Your task to perform on an android device: turn off translation in the chrome app Image 0: 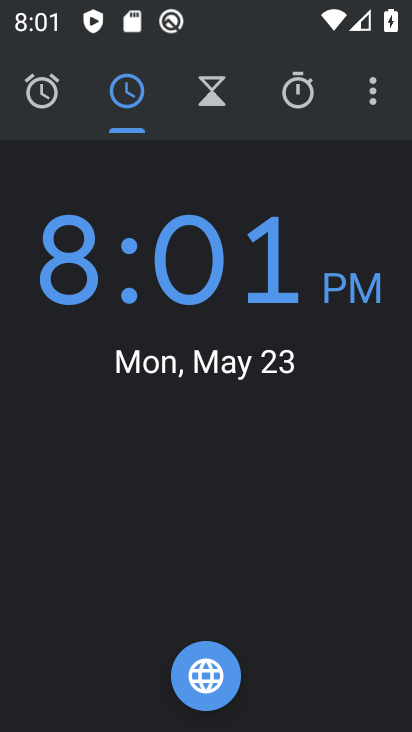
Step 0: press home button
Your task to perform on an android device: turn off translation in the chrome app Image 1: 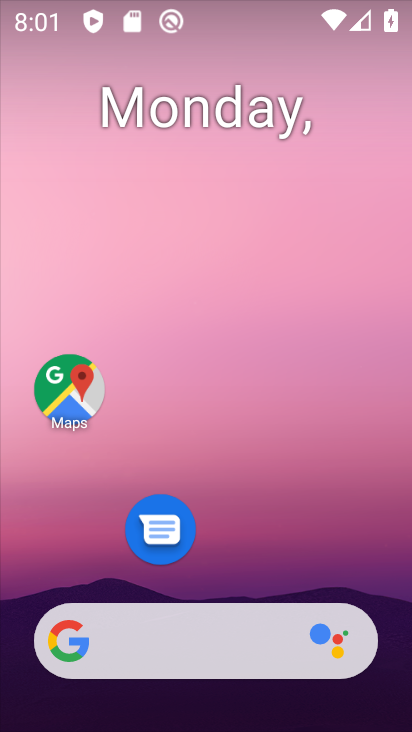
Step 1: drag from (237, 582) to (266, 191)
Your task to perform on an android device: turn off translation in the chrome app Image 2: 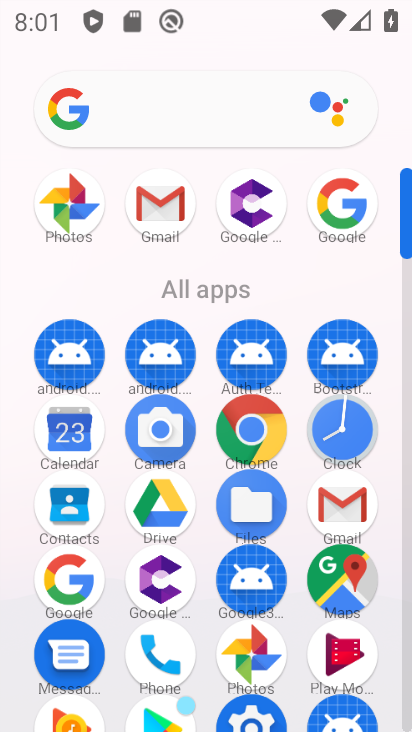
Step 2: click (248, 430)
Your task to perform on an android device: turn off translation in the chrome app Image 3: 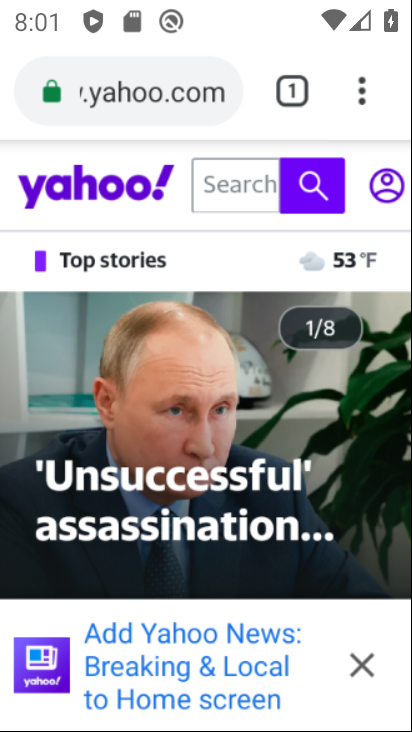
Step 3: drag from (359, 97) to (105, 569)
Your task to perform on an android device: turn off translation in the chrome app Image 4: 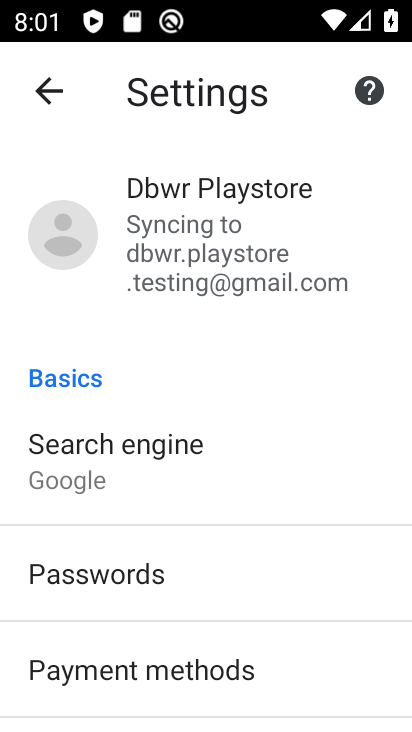
Step 4: drag from (195, 574) to (285, 213)
Your task to perform on an android device: turn off translation in the chrome app Image 5: 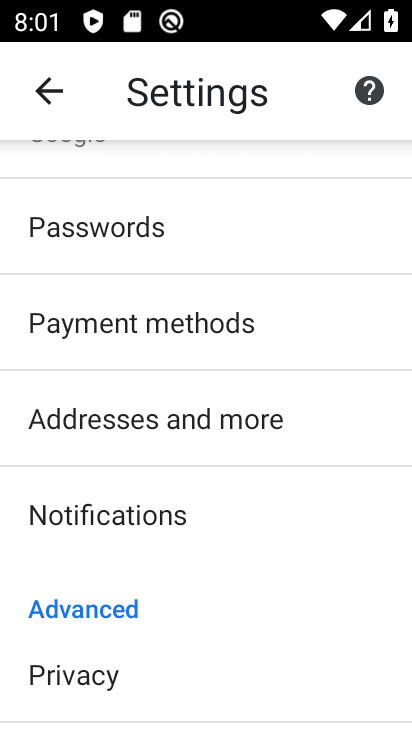
Step 5: drag from (190, 666) to (256, 319)
Your task to perform on an android device: turn off translation in the chrome app Image 6: 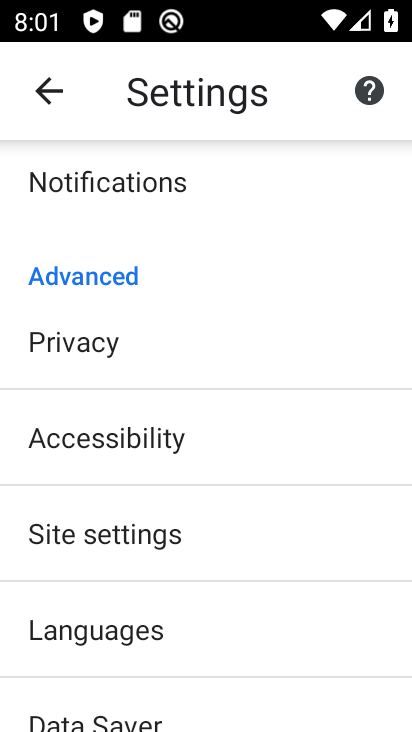
Step 6: click (316, 629)
Your task to perform on an android device: turn off translation in the chrome app Image 7: 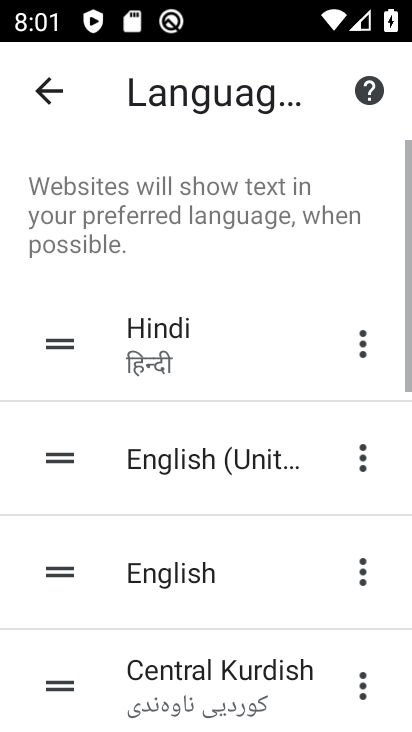
Step 7: drag from (299, 583) to (298, 209)
Your task to perform on an android device: turn off translation in the chrome app Image 8: 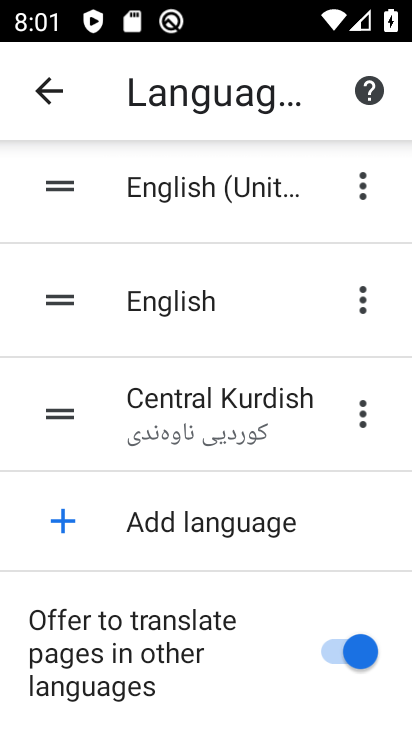
Step 8: click (321, 646)
Your task to perform on an android device: turn off translation in the chrome app Image 9: 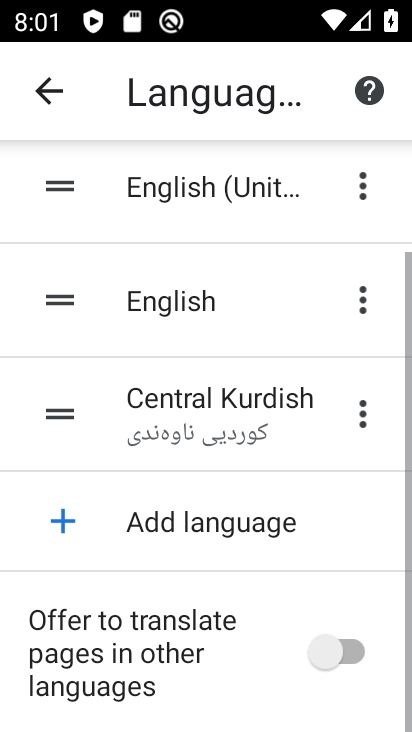
Step 9: task complete